Your task to perform on an android device: clear history in the chrome app Image 0: 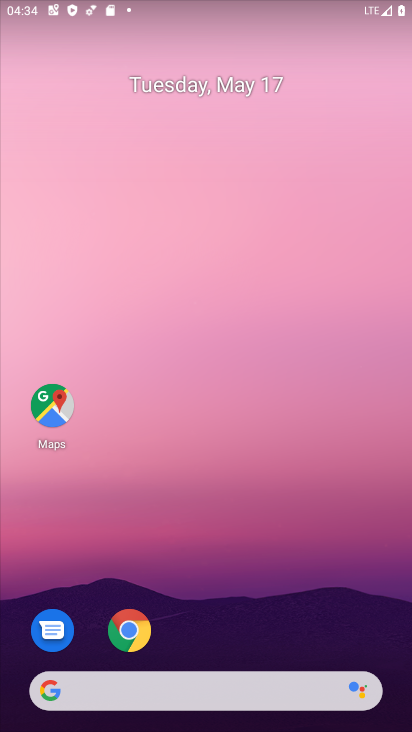
Step 0: click (139, 639)
Your task to perform on an android device: clear history in the chrome app Image 1: 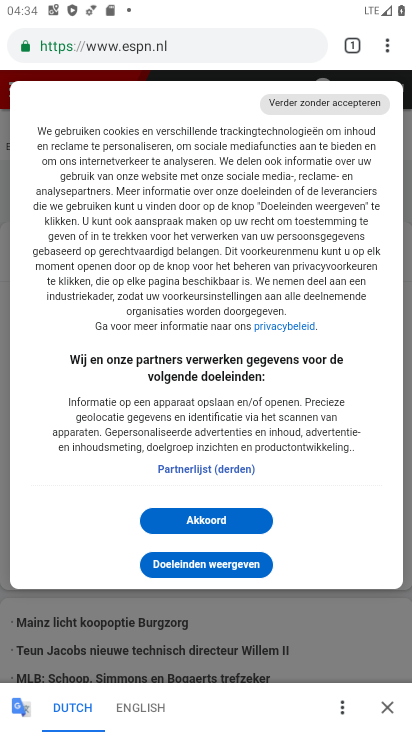
Step 1: drag from (391, 47) to (214, 261)
Your task to perform on an android device: clear history in the chrome app Image 2: 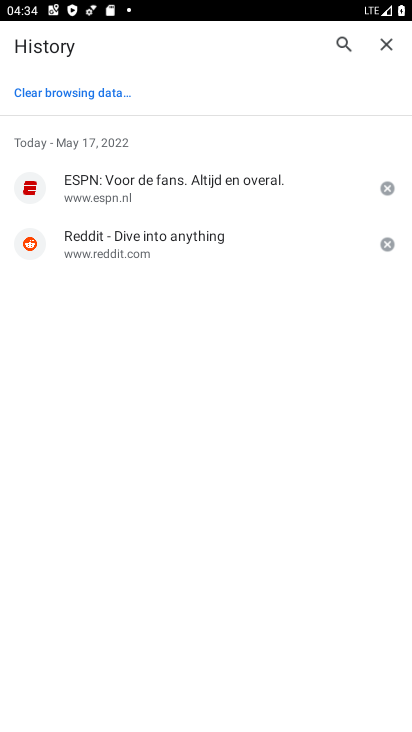
Step 2: drag from (32, 186) to (27, 248)
Your task to perform on an android device: clear history in the chrome app Image 3: 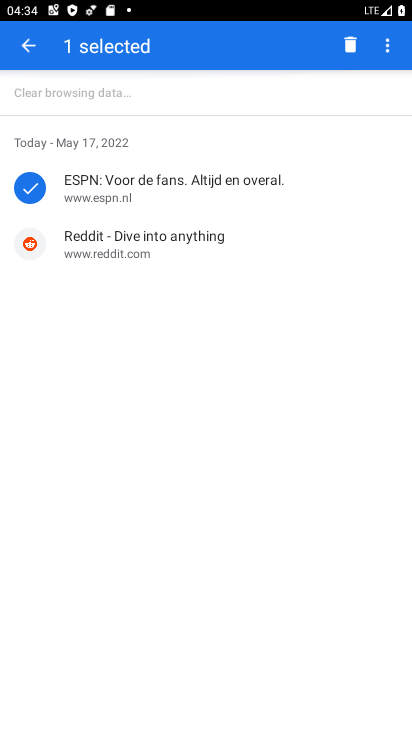
Step 3: click (27, 248)
Your task to perform on an android device: clear history in the chrome app Image 4: 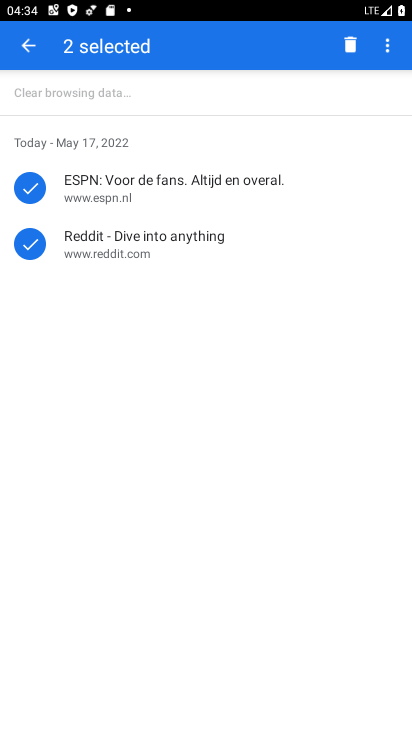
Step 4: click (351, 43)
Your task to perform on an android device: clear history in the chrome app Image 5: 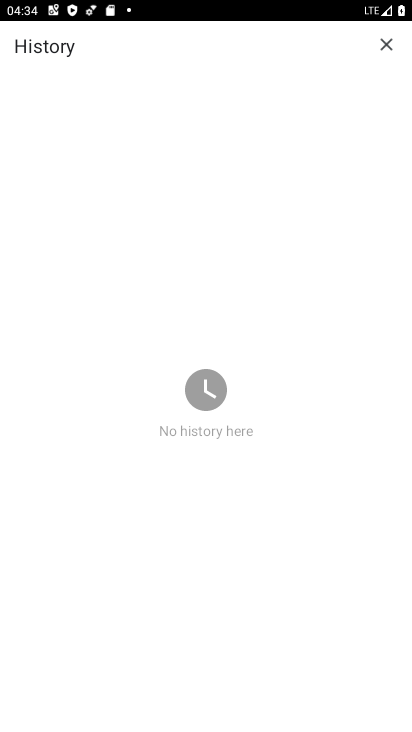
Step 5: task complete